Your task to perform on an android device: Is it going to rain tomorrow? Image 0: 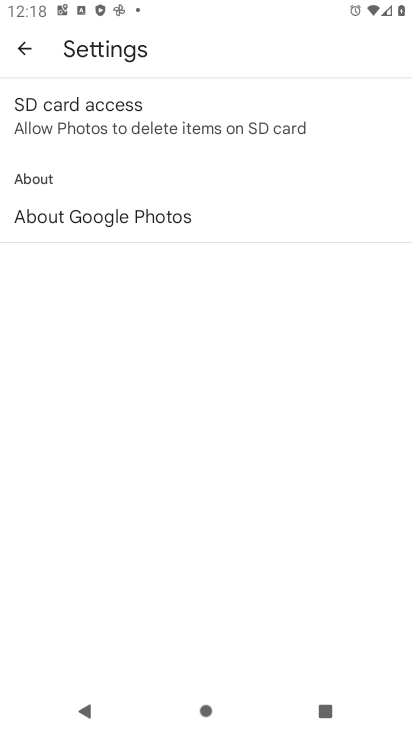
Step 0: press home button
Your task to perform on an android device: Is it going to rain tomorrow? Image 1: 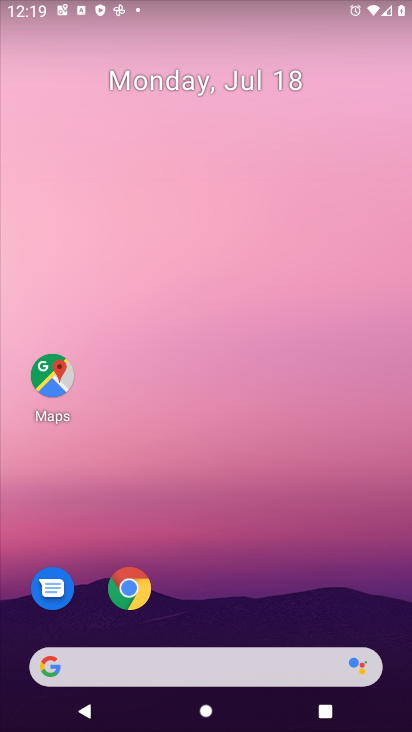
Step 1: drag from (222, 638) to (233, 139)
Your task to perform on an android device: Is it going to rain tomorrow? Image 2: 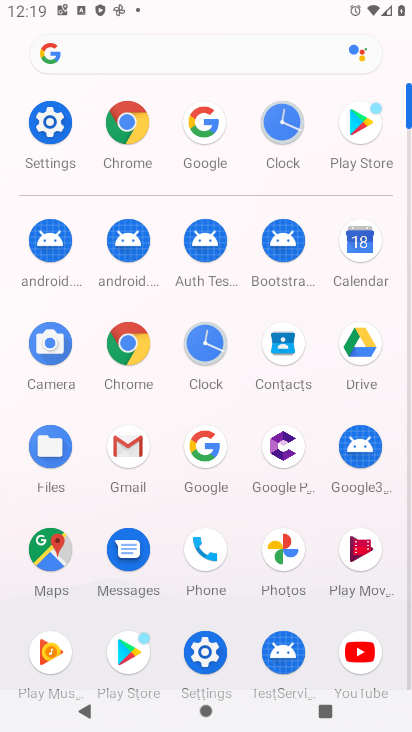
Step 2: click (214, 472)
Your task to perform on an android device: Is it going to rain tomorrow? Image 3: 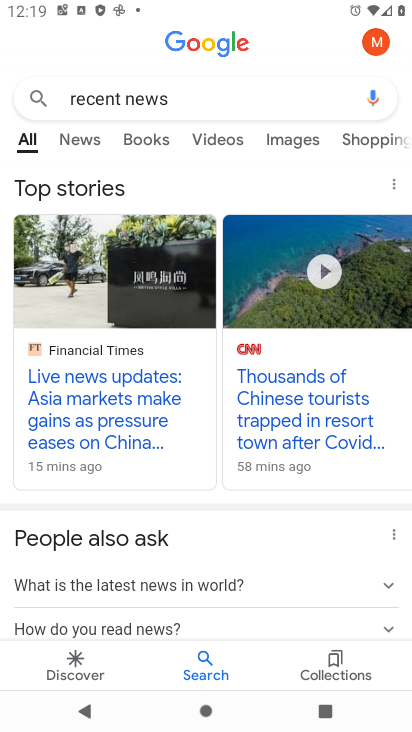
Step 3: click (240, 89)
Your task to perform on an android device: Is it going to rain tomorrow? Image 4: 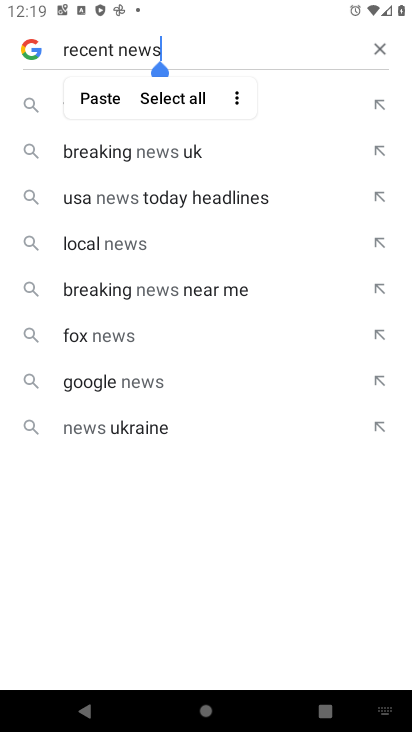
Step 4: click (370, 48)
Your task to perform on an android device: Is it going to rain tomorrow? Image 5: 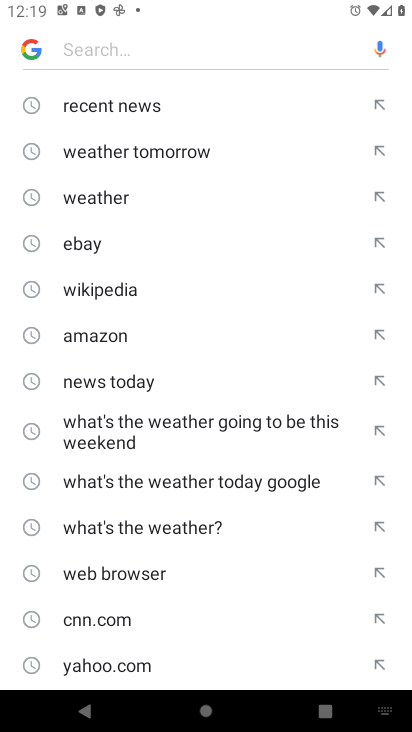
Step 5: click (144, 152)
Your task to perform on an android device: Is it going to rain tomorrow? Image 6: 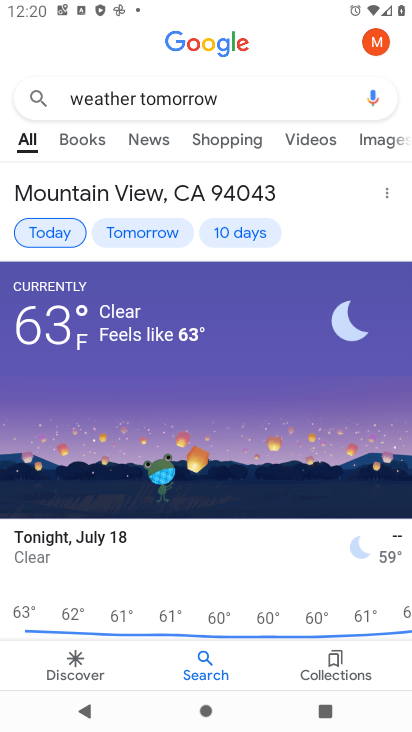
Step 6: click (153, 231)
Your task to perform on an android device: Is it going to rain tomorrow? Image 7: 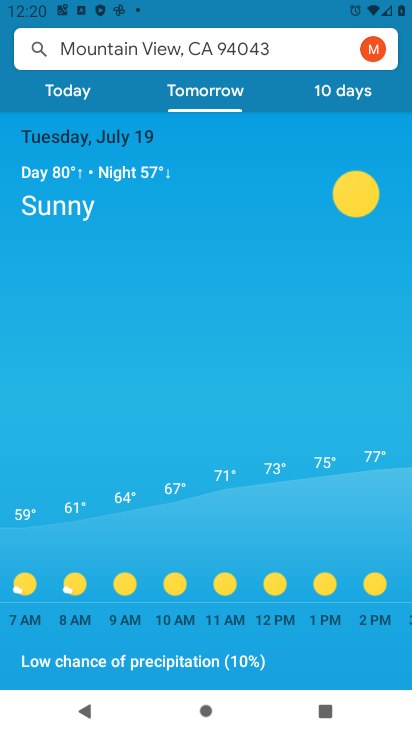
Step 7: task complete